Your task to perform on an android device: add a contact Image 0: 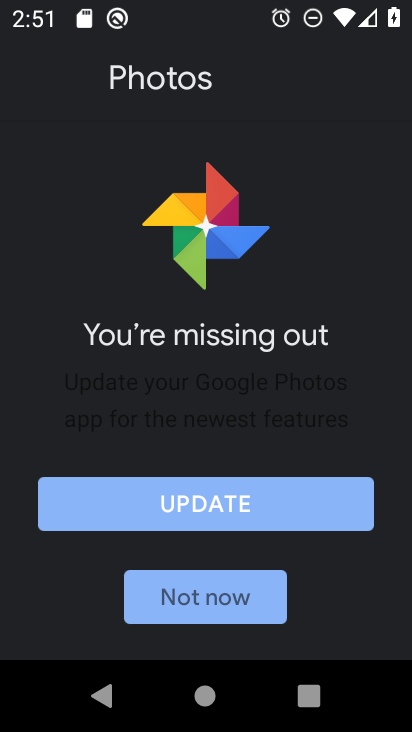
Step 0: press home button
Your task to perform on an android device: add a contact Image 1: 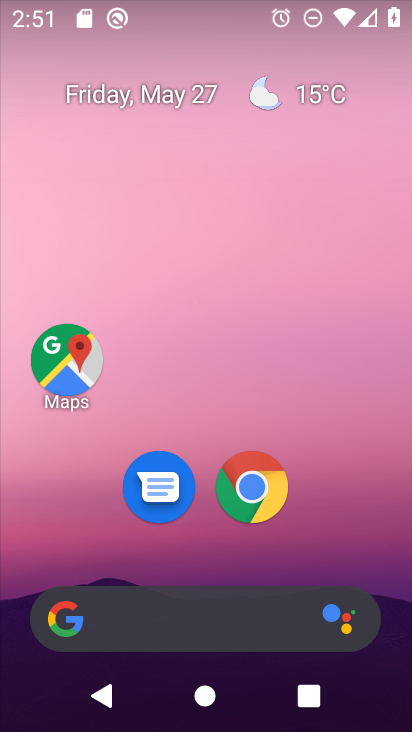
Step 1: drag from (212, 563) to (187, 28)
Your task to perform on an android device: add a contact Image 2: 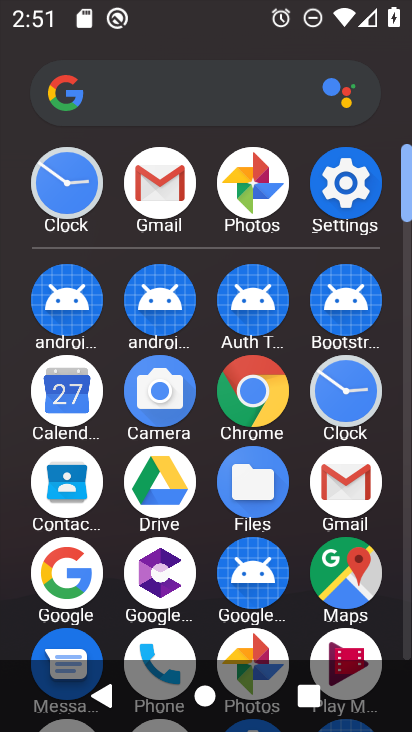
Step 2: click (82, 494)
Your task to perform on an android device: add a contact Image 3: 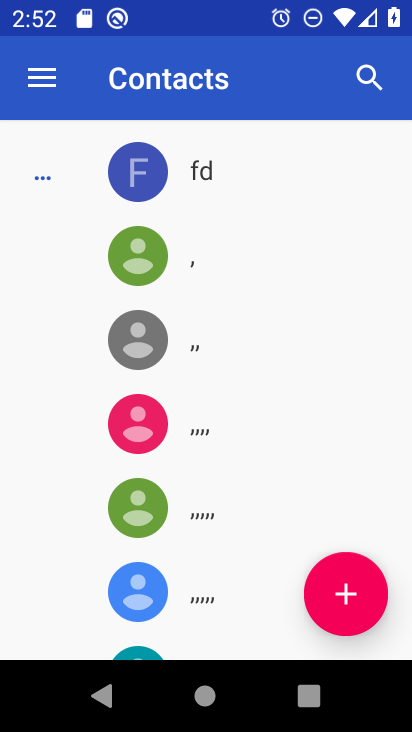
Step 3: click (46, 177)
Your task to perform on an android device: add a contact Image 4: 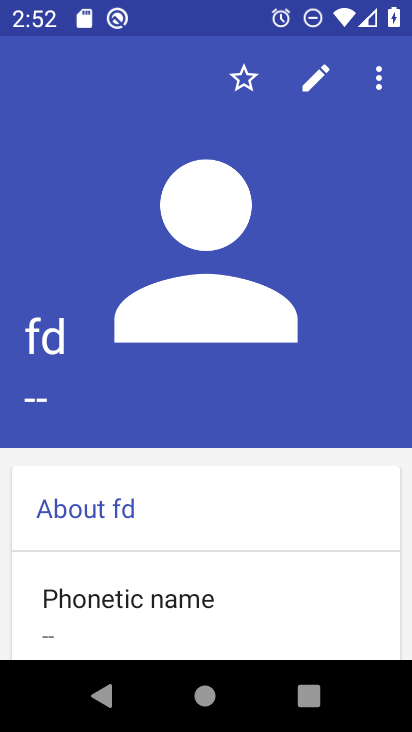
Step 4: click (377, 79)
Your task to perform on an android device: add a contact Image 5: 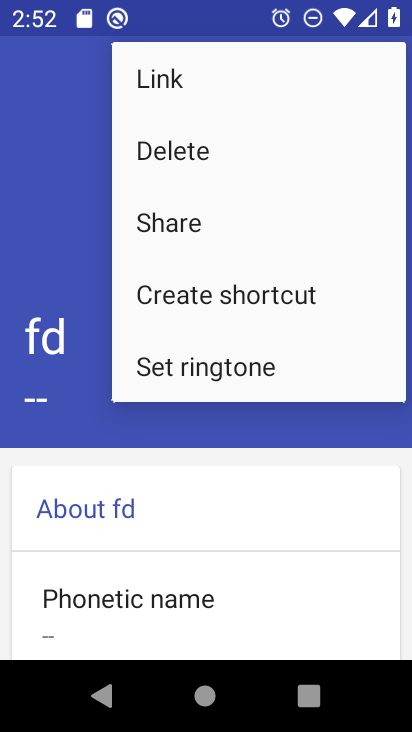
Step 5: click (288, 171)
Your task to perform on an android device: add a contact Image 6: 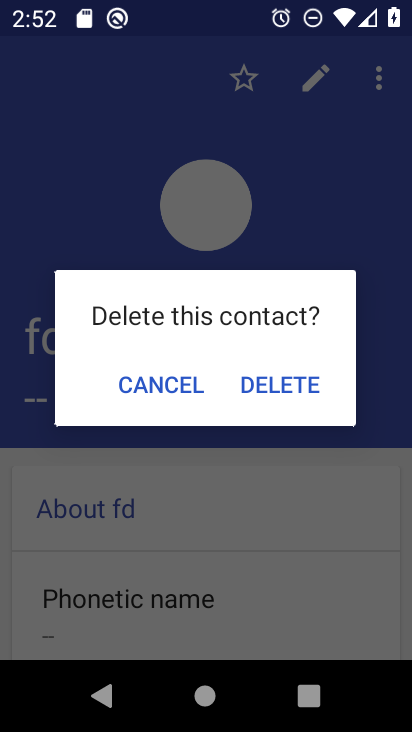
Step 6: click (303, 392)
Your task to perform on an android device: add a contact Image 7: 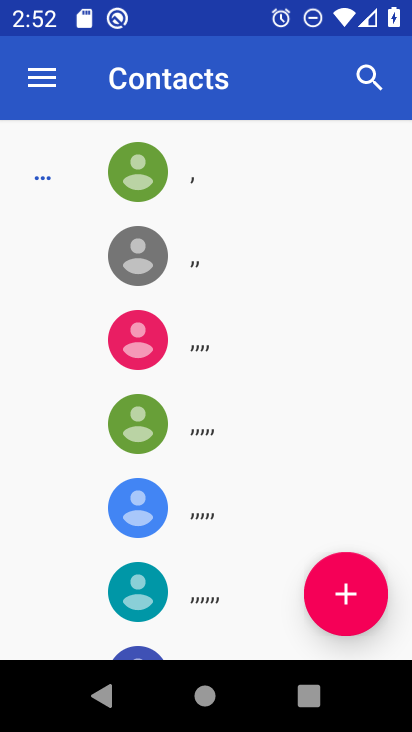
Step 7: click (335, 582)
Your task to perform on an android device: add a contact Image 8: 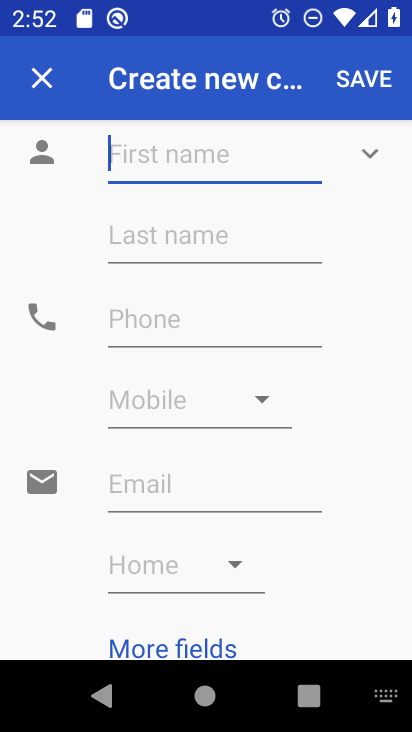
Step 8: type ",,,"
Your task to perform on an android device: add a contact Image 9: 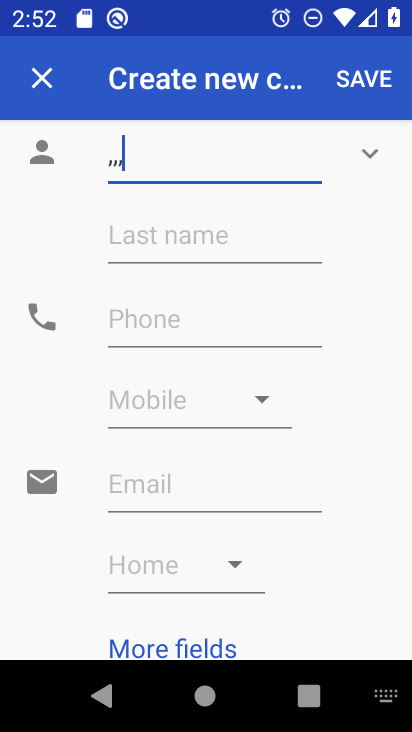
Step 9: click (138, 322)
Your task to perform on an android device: add a contact Image 10: 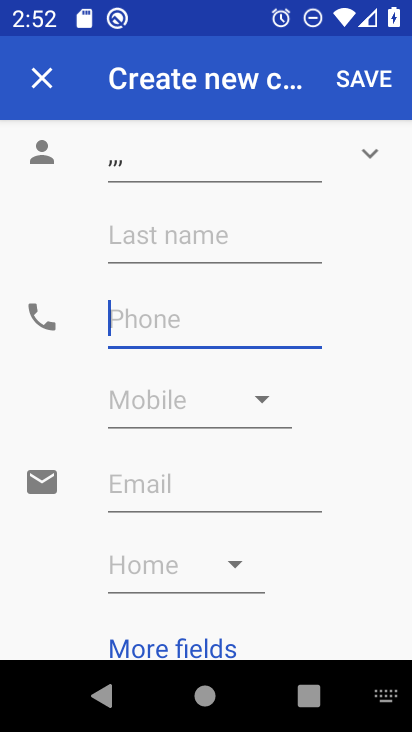
Step 10: type "876543234"
Your task to perform on an android device: add a contact Image 11: 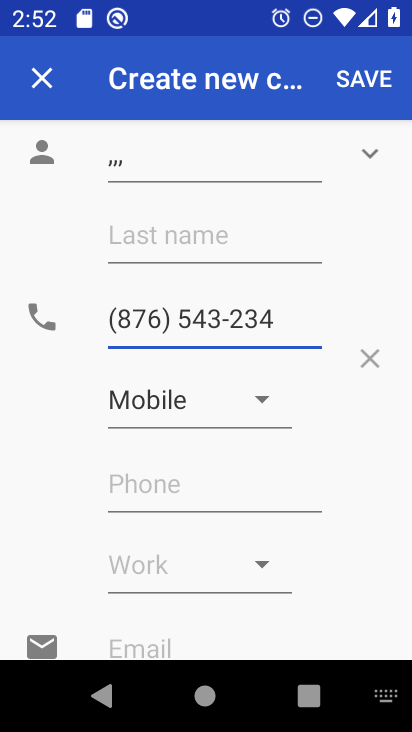
Step 11: click (378, 73)
Your task to perform on an android device: add a contact Image 12: 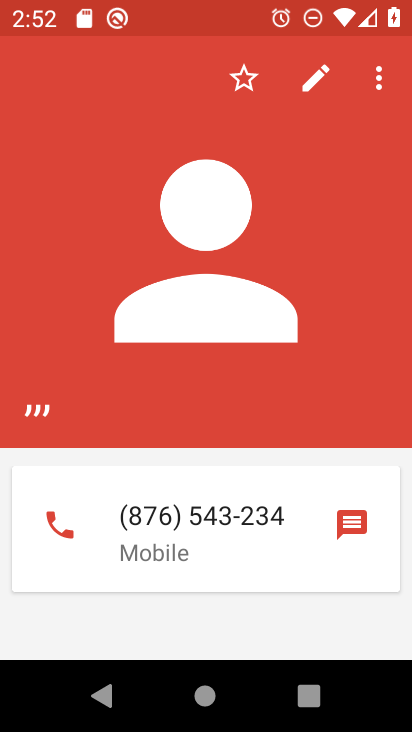
Step 12: task complete